Your task to perform on an android device: toggle wifi Image 0: 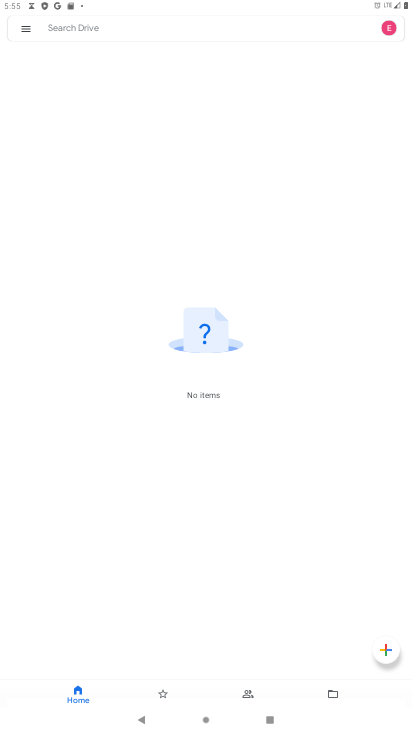
Step 0: press home button
Your task to perform on an android device: toggle wifi Image 1: 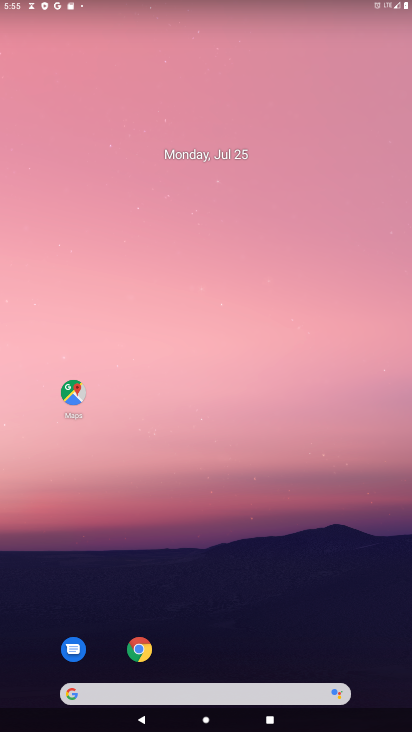
Step 1: drag from (317, 694) to (394, 9)
Your task to perform on an android device: toggle wifi Image 2: 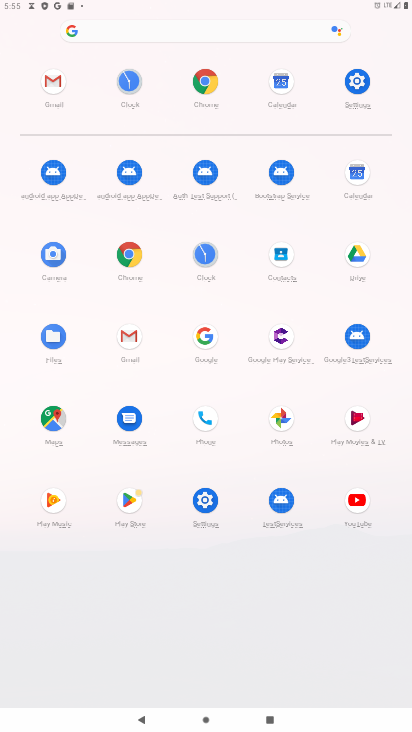
Step 2: click (352, 83)
Your task to perform on an android device: toggle wifi Image 3: 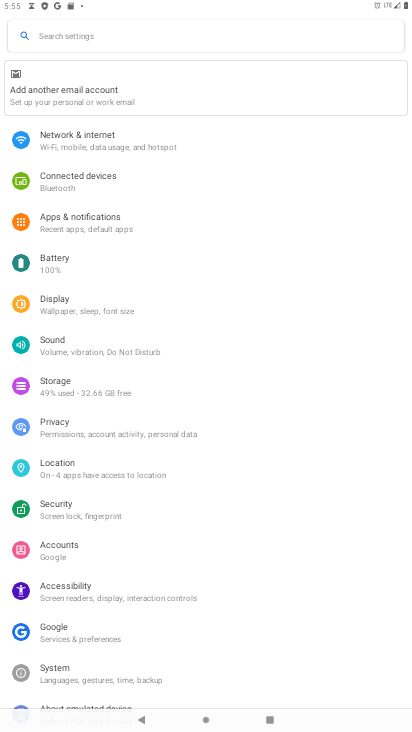
Step 3: click (87, 134)
Your task to perform on an android device: toggle wifi Image 4: 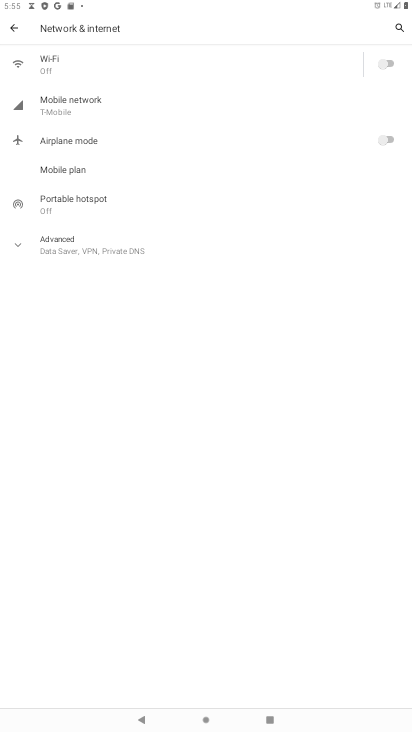
Step 4: click (384, 62)
Your task to perform on an android device: toggle wifi Image 5: 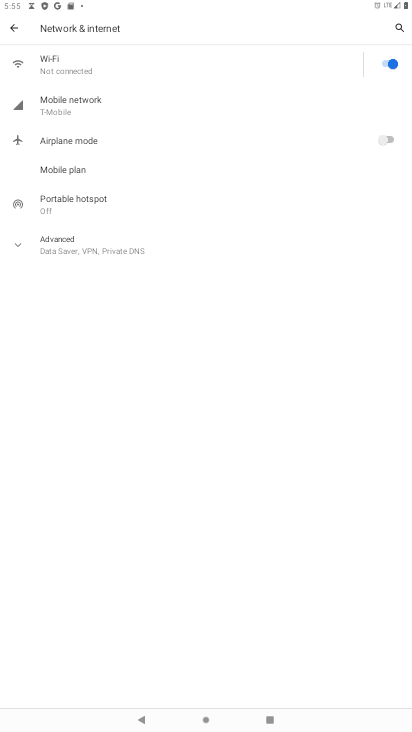
Step 5: task complete